Your task to perform on an android device: change the clock style Image 0: 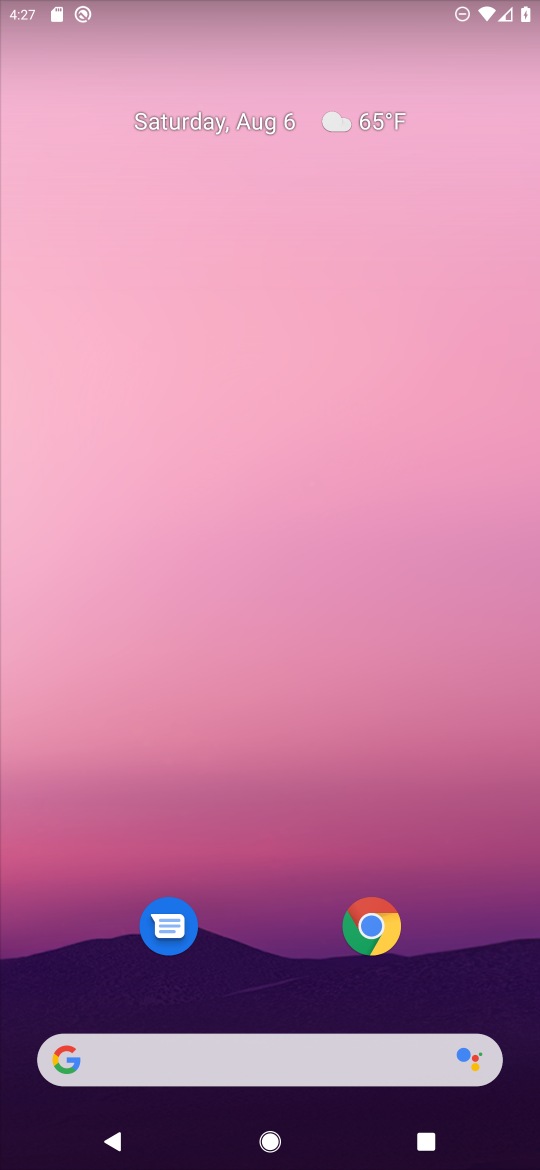
Step 0: drag from (260, 954) to (297, 362)
Your task to perform on an android device: change the clock style Image 1: 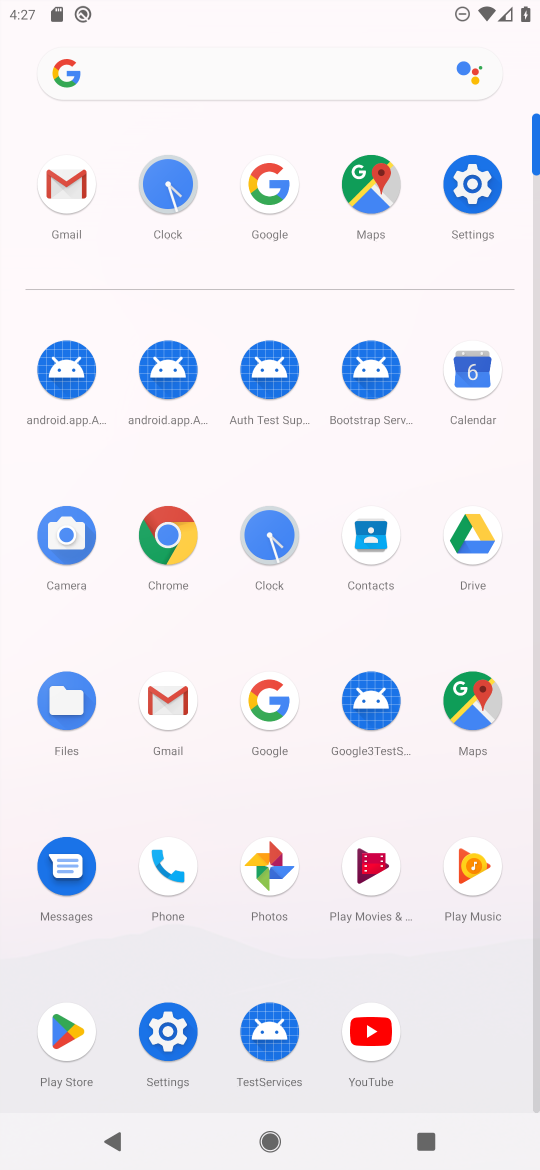
Step 1: click (162, 195)
Your task to perform on an android device: change the clock style Image 2: 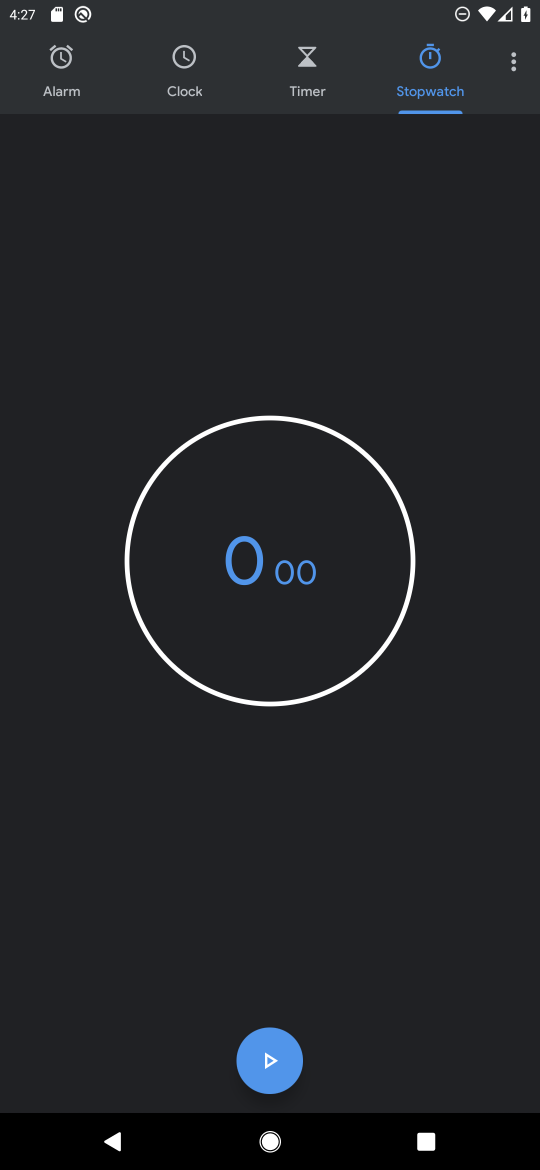
Step 2: click (516, 80)
Your task to perform on an android device: change the clock style Image 3: 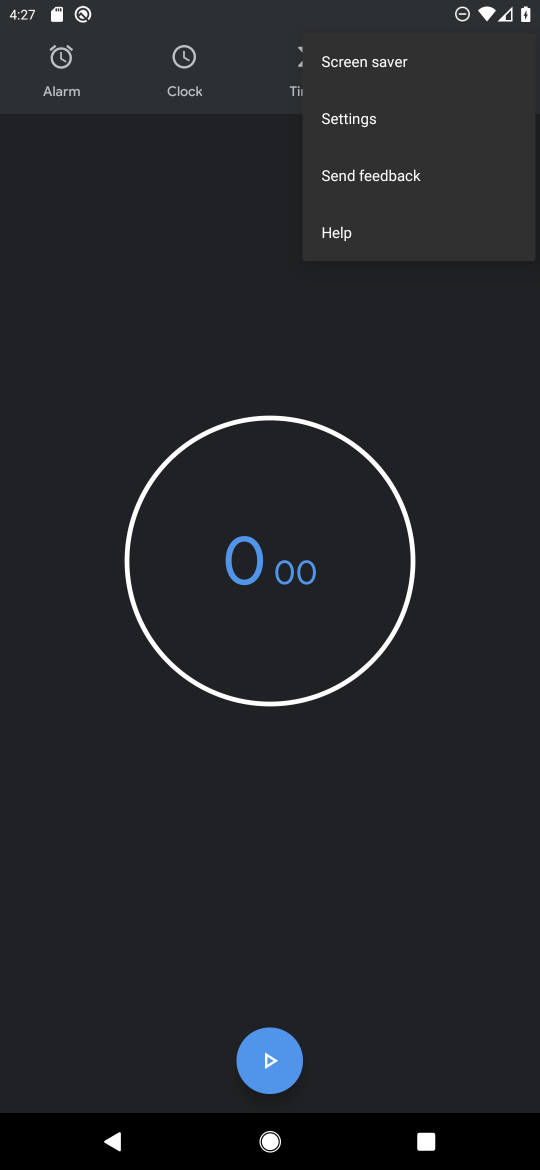
Step 3: click (377, 114)
Your task to perform on an android device: change the clock style Image 4: 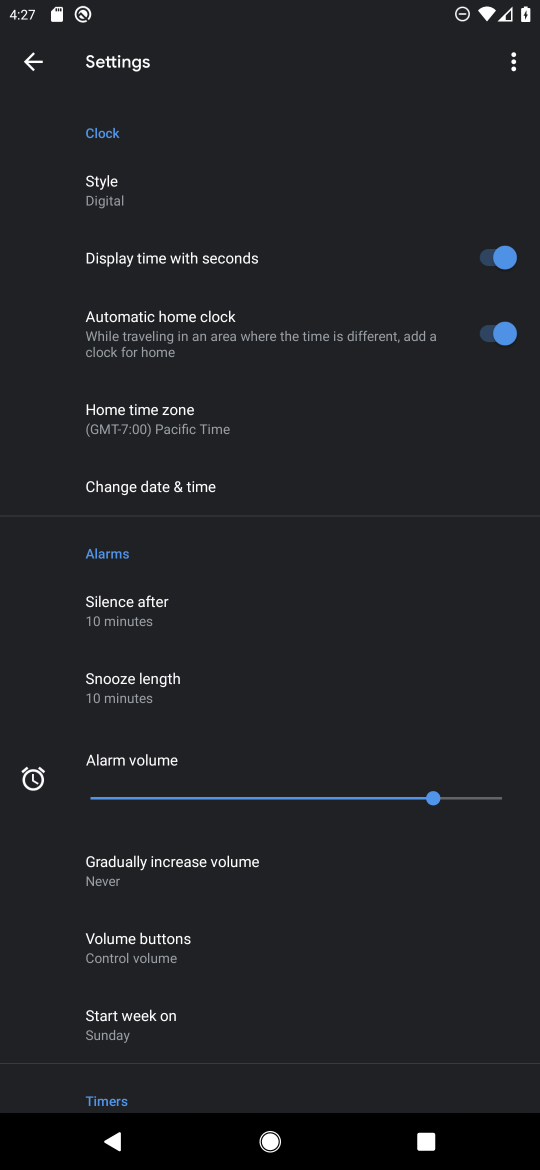
Step 4: click (136, 197)
Your task to perform on an android device: change the clock style Image 5: 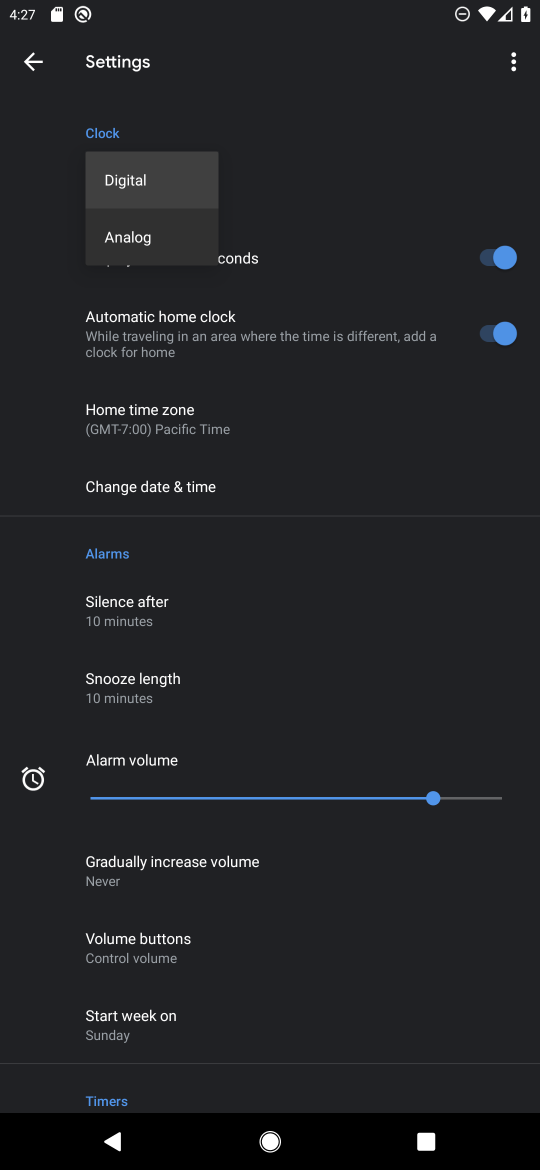
Step 5: click (149, 247)
Your task to perform on an android device: change the clock style Image 6: 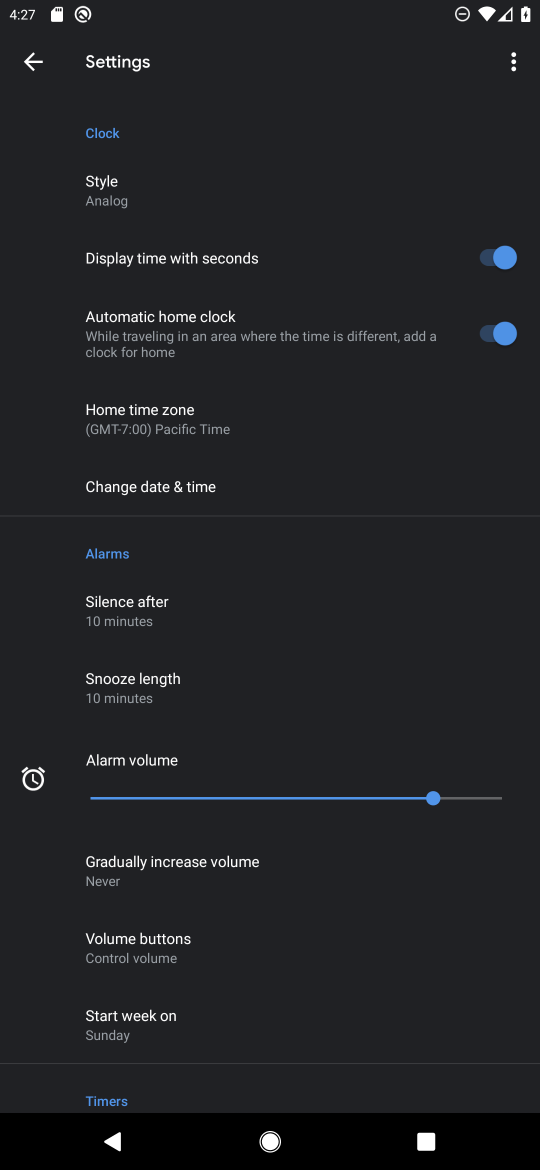
Step 6: task complete